Your task to perform on an android device: toggle location history Image 0: 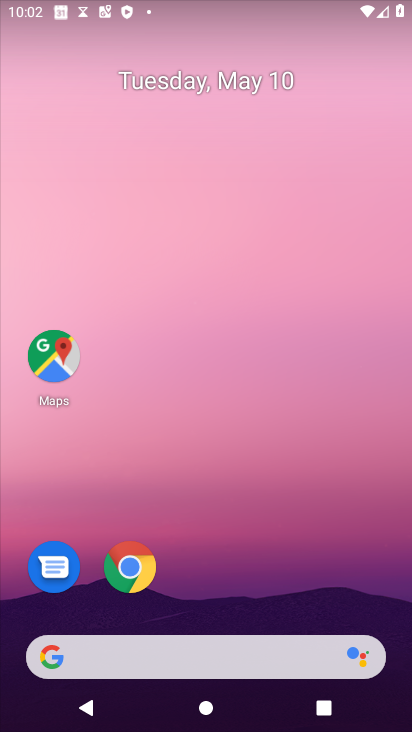
Step 0: drag from (77, 578) to (300, 247)
Your task to perform on an android device: toggle location history Image 1: 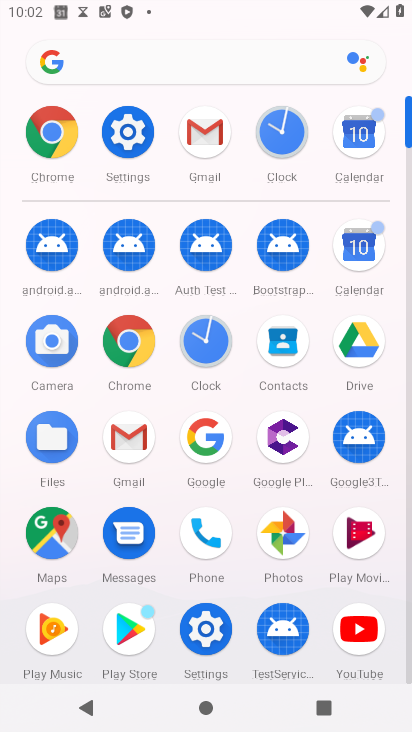
Step 1: click (129, 129)
Your task to perform on an android device: toggle location history Image 2: 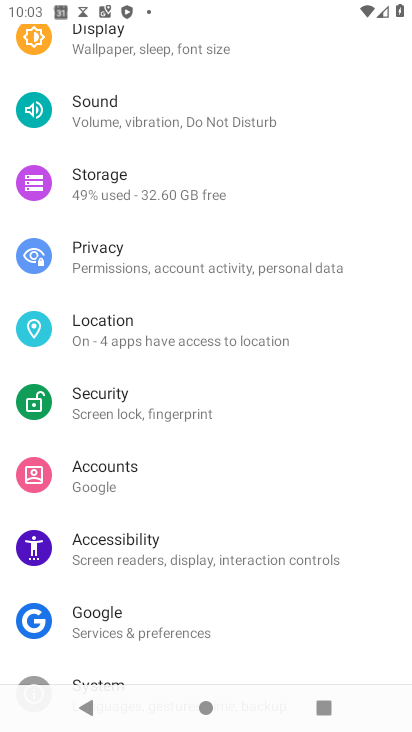
Step 2: click (148, 325)
Your task to perform on an android device: toggle location history Image 3: 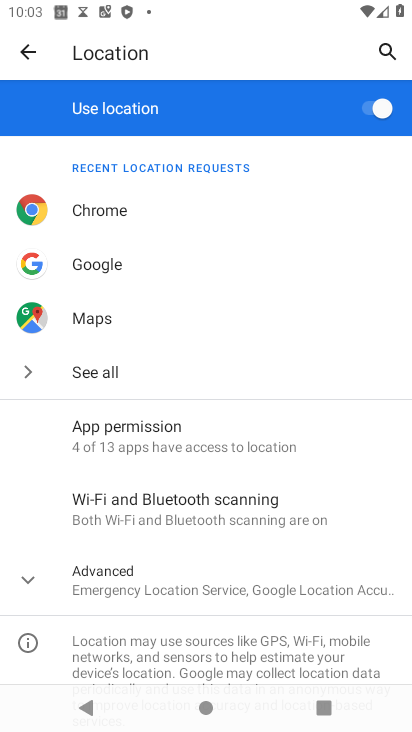
Step 3: click (125, 598)
Your task to perform on an android device: toggle location history Image 4: 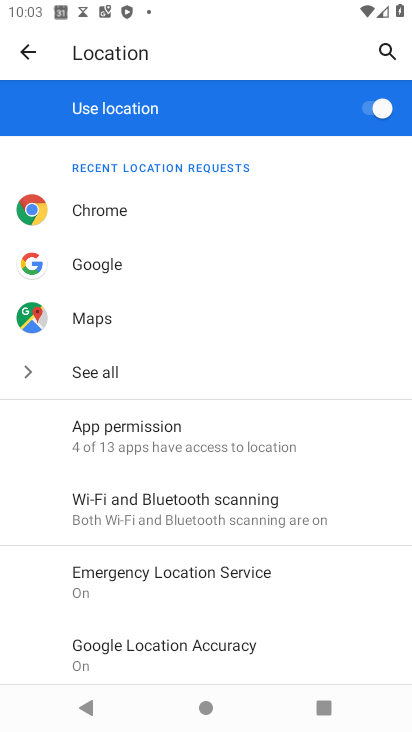
Step 4: drag from (170, 659) to (253, 217)
Your task to perform on an android device: toggle location history Image 5: 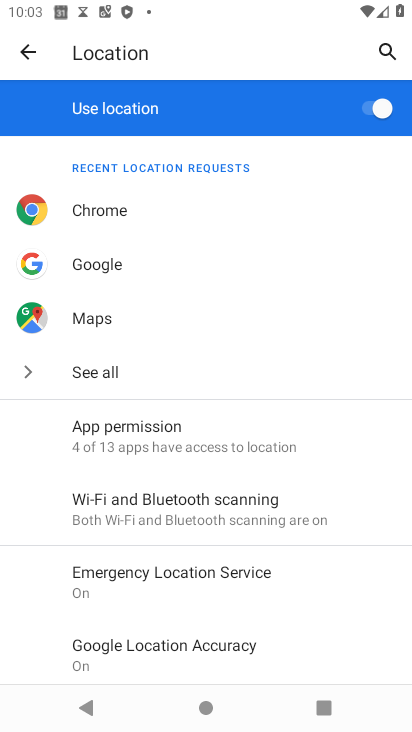
Step 5: drag from (5, 507) to (182, 217)
Your task to perform on an android device: toggle location history Image 6: 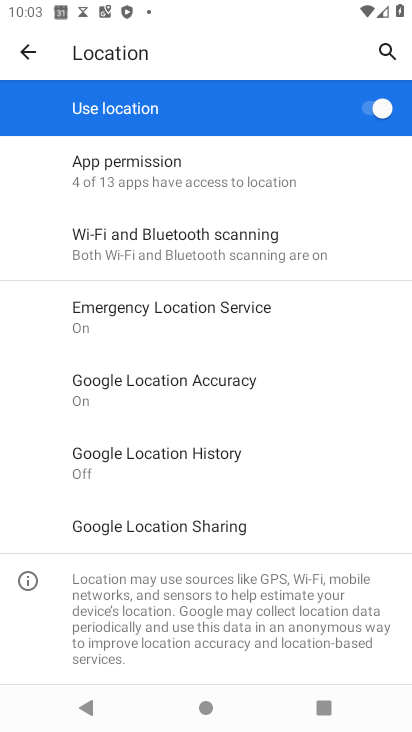
Step 6: click (230, 449)
Your task to perform on an android device: toggle location history Image 7: 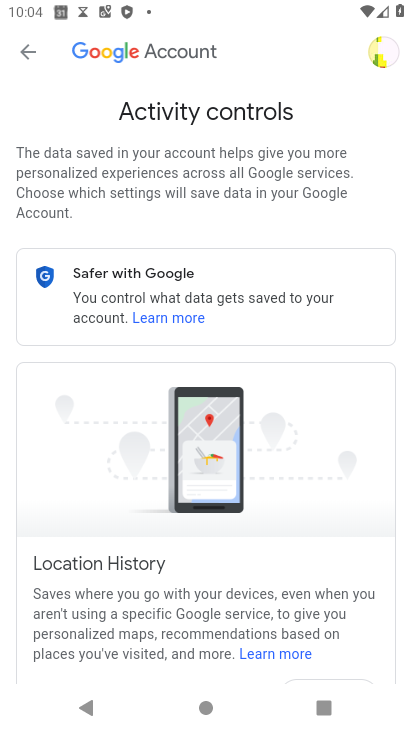
Step 7: drag from (154, 637) to (303, 157)
Your task to perform on an android device: toggle location history Image 8: 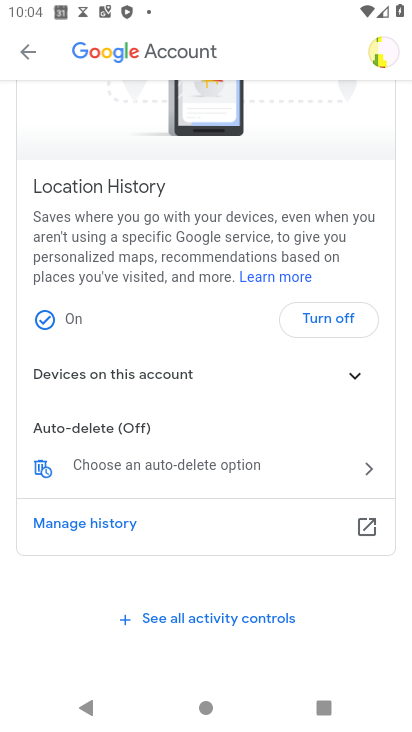
Step 8: click (343, 318)
Your task to perform on an android device: toggle location history Image 9: 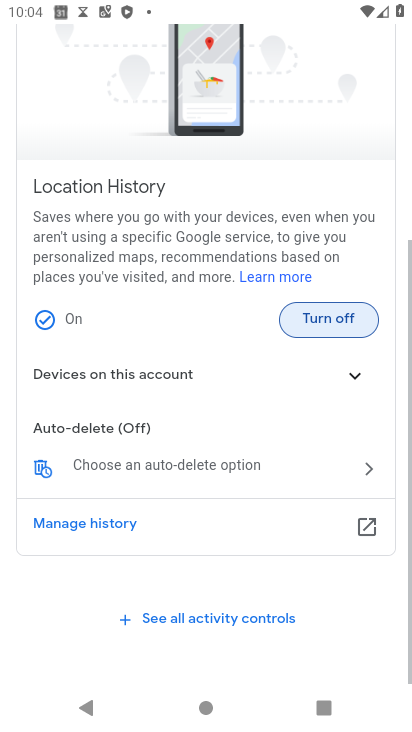
Step 9: task complete